Your task to perform on an android device: check out phone information Image 0: 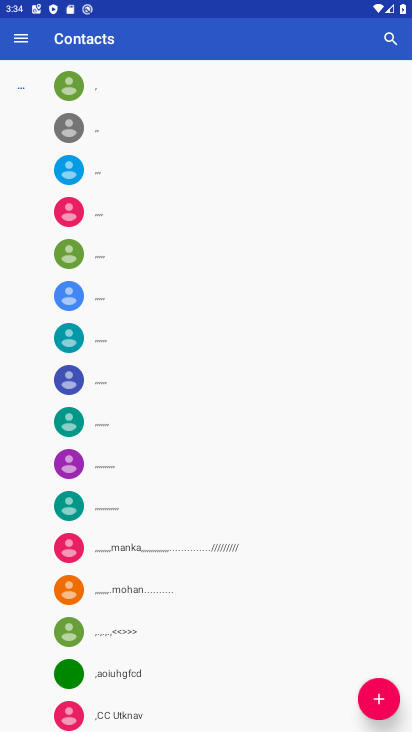
Step 0: press home button
Your task to perform on an android device: check out phone information Image 1: 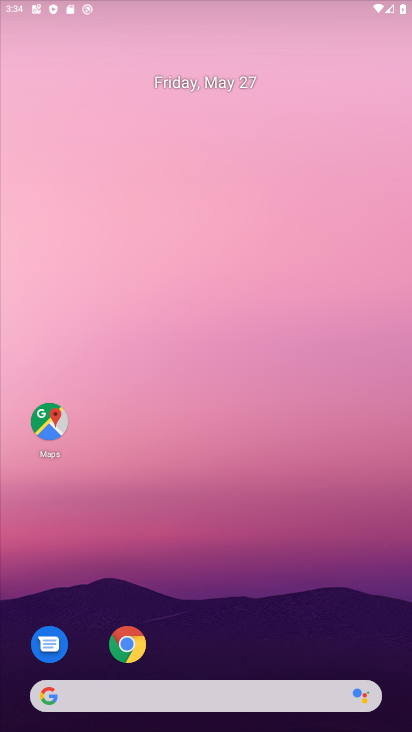
Step 1: drag from (316, 607) to (188, 13)
Your task to perform on an android device: check out phone information Image 2: 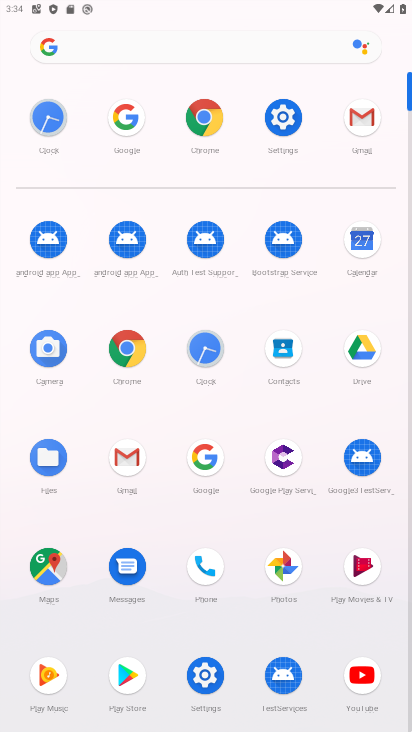
Step 2: click (286, 125)
Your task to perform on an android device: check out phone information Image 3: 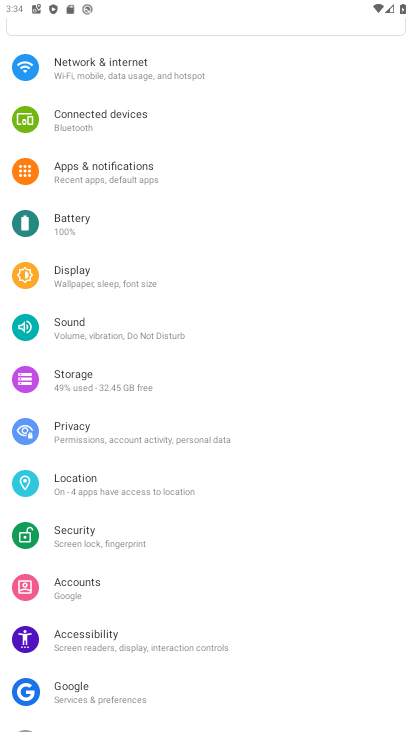
Step 3: drag from (207, 692) to (236, 158)
Your task to perform on an android device: check out phone information Image 4: 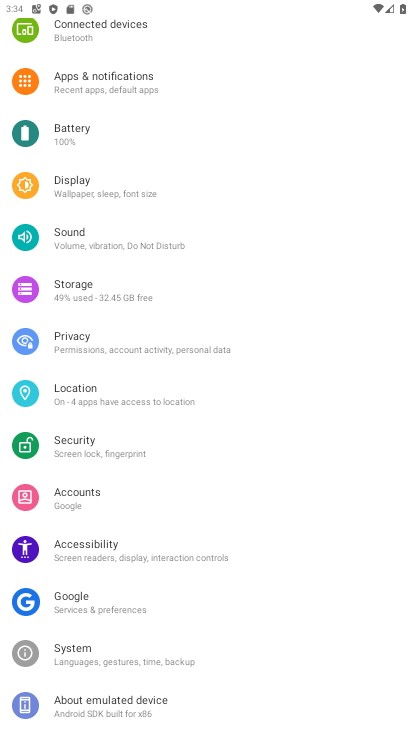
Step 4: click (192, 722)
Your task to perform on an android device: check out phone information Image 5: 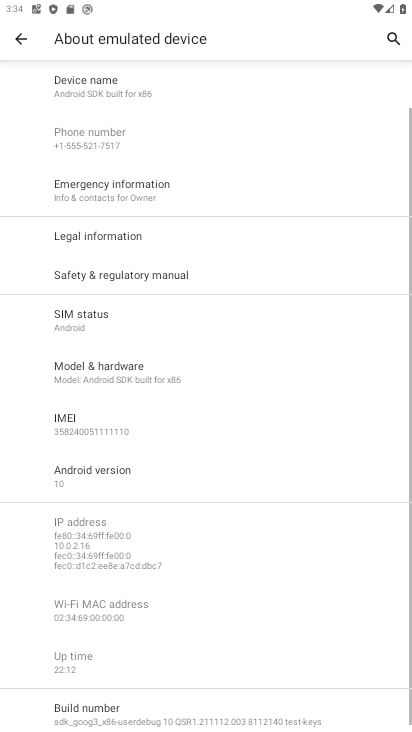
Step 5: task complete